Your task to perform on an android device: change the upload size in google photos Image 0: 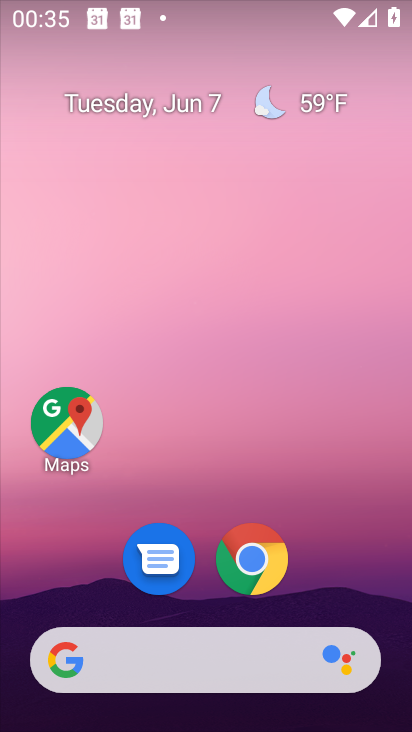
Step 0: drag from (308, 584) to (361, 25)
Your task to perform on an android device: change the upload size in google photos Image 1: 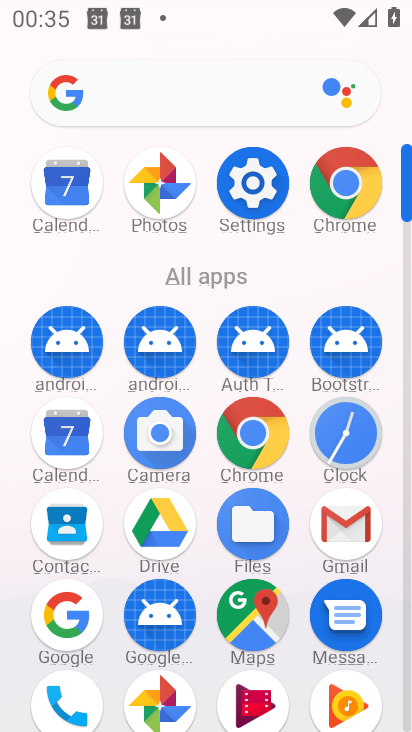
Step 1: click (407, 271)
Your task to perform on an android device: change the upload size in google photos Image 2: 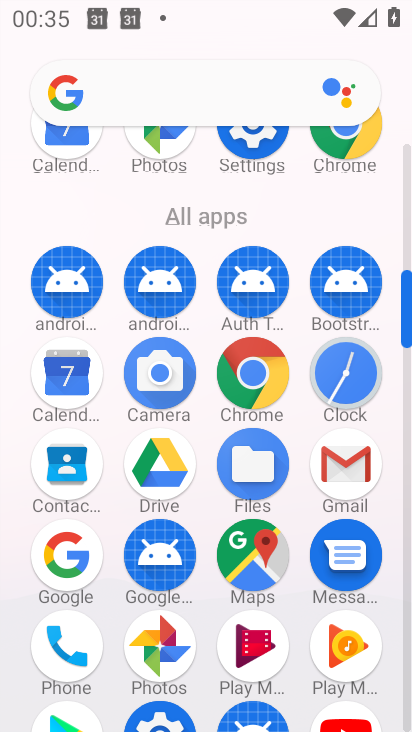
Step 2: click (158, 645)
Your task to perform on an android device: change the upload size in google photos Image 3: 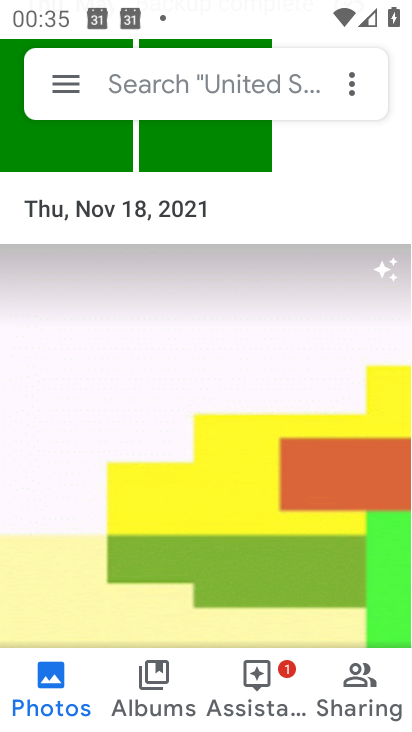
Step 3: click (154, 682)
Your task to perform on an android device: change the upload size in google photos Image 4: 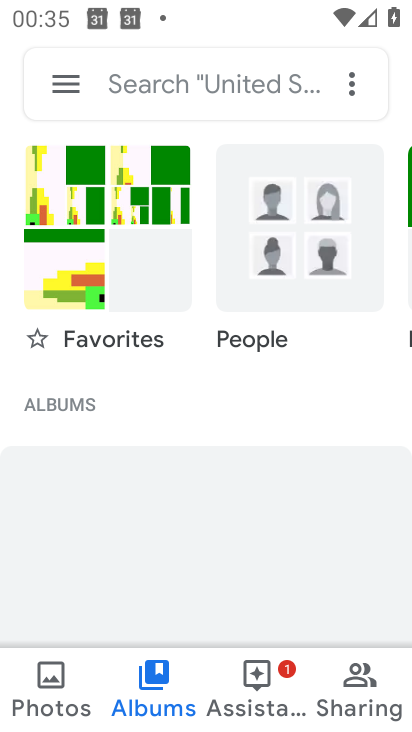
Step 4: click (58, 67)
Your task to perform on an android device: change the upload size in google photos Image 5: 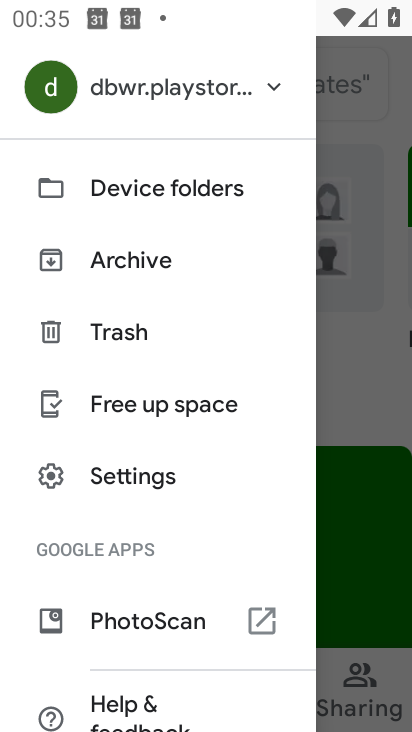
Step 5: click (110, 465)
Your task to perform on an android device: change the upload size in google photos Image 6: 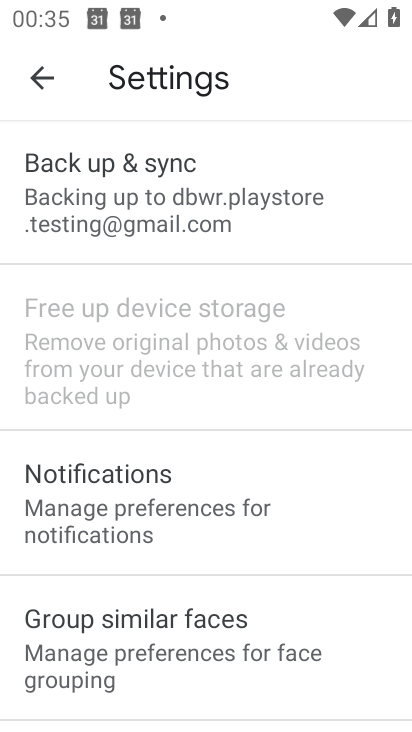
Step 6: drag from (302, 676) to (334, 385)
Your task to perform on an android device: change the upload size in google photos Image 7: 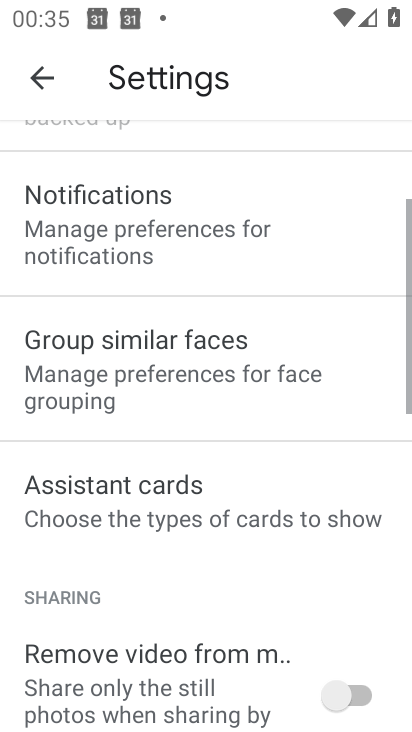
Step 7: click (334, 385)
Your task to perform on an android device: change the upload size in google photos Image 8: 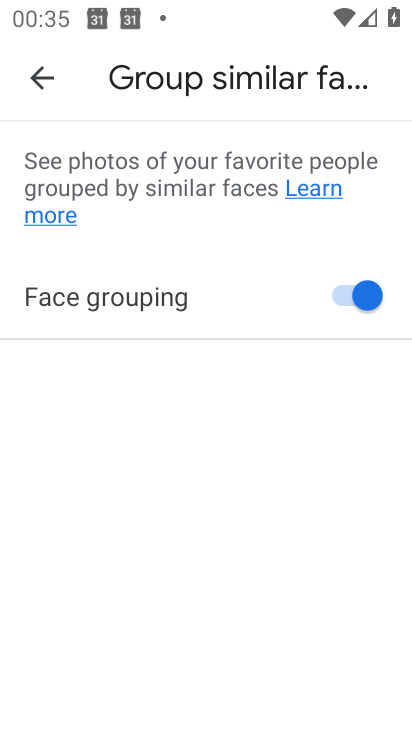
Step 8: click (44, 70)
Your task to perform on an android device: change the upload size in google photos Image 9: 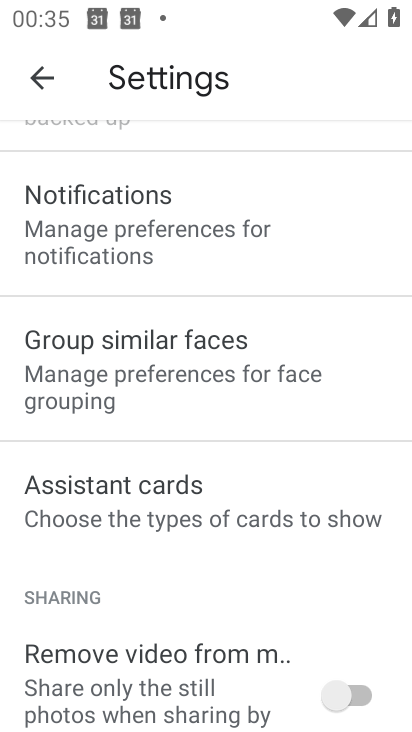
Step 9: task complete